Your task to perform on an android device: turn off sleep mode Image 0: 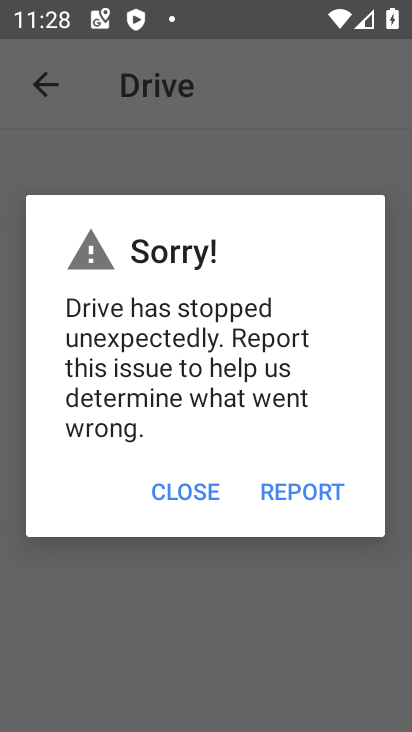
Step 0: press home button
Your task to perform on an android device: turn off sleep mode Image 1: 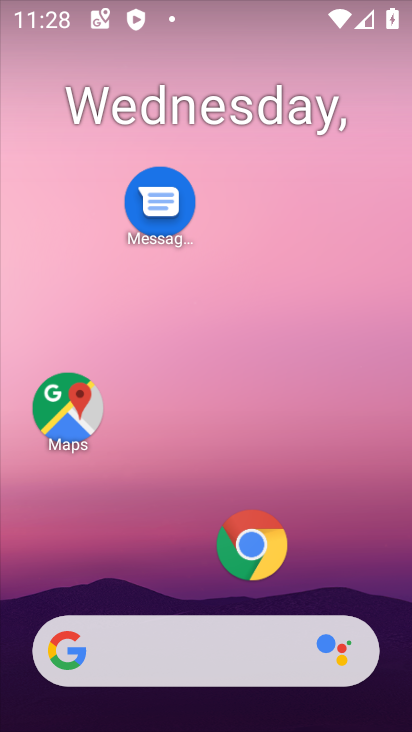
Step 1: drag from (179, 567) to (215, 219)
Your task to perform on an android device: turn off sleep mode Image 2: 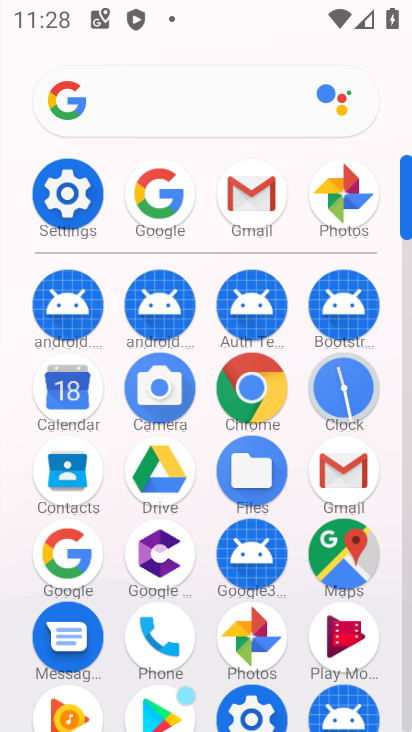
Step 2: click (87, 206)
Your task to perform on an android device: turn off sleep mode Image 3: 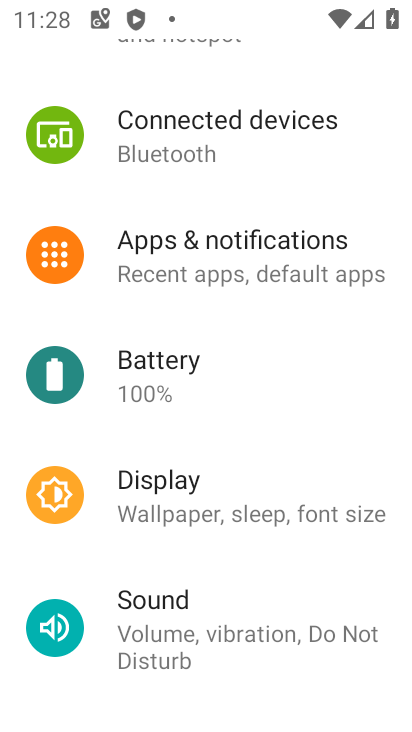
Step 3: click (209, 506)
Your task to perform on an android device: turn off sleep mode Image 4: 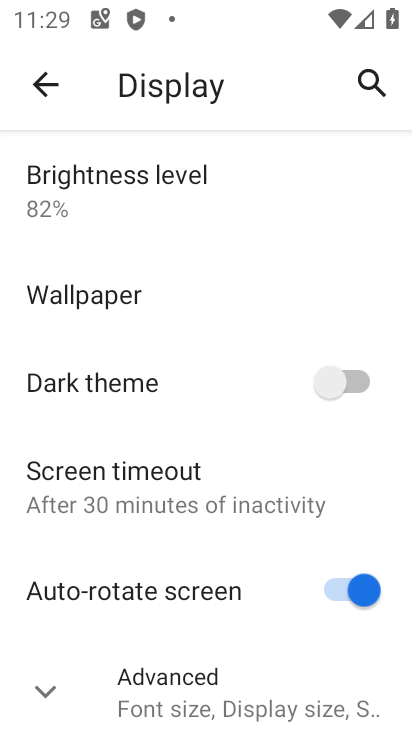
Step 4: drag from (217, 611) to (212, 402)
Your task to perform on an android device: turn off sleep mode Image 5: 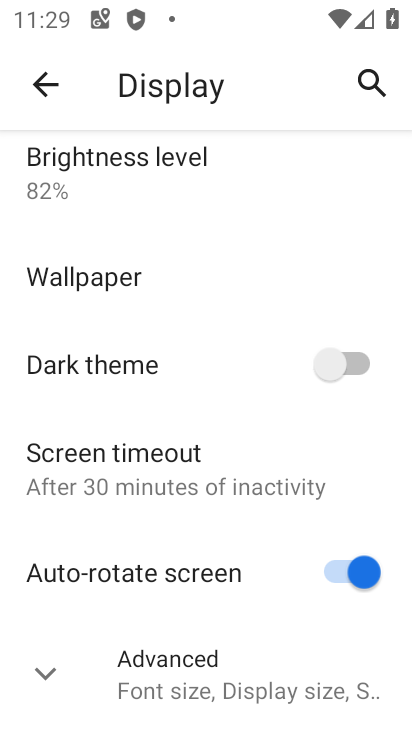
Step 5: click (196, 447)
Your task to perform on an android device: turn off sleep mode Image 6: 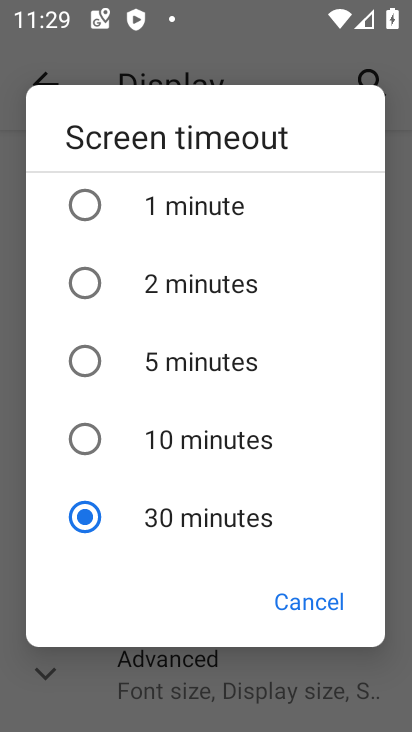
Step 6: click (176, 298)
Your task to perform on an android device: turn off sleep mode Image 7: 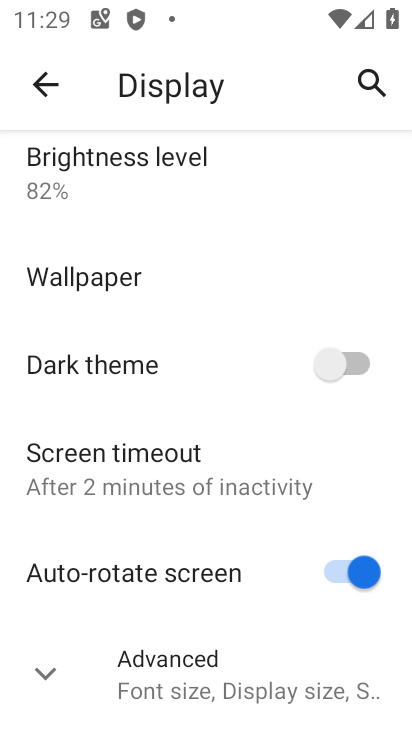
Step 7: task complete